Your task to perform on an android device: open the mobile data screen to see how much data has been used Image 0: 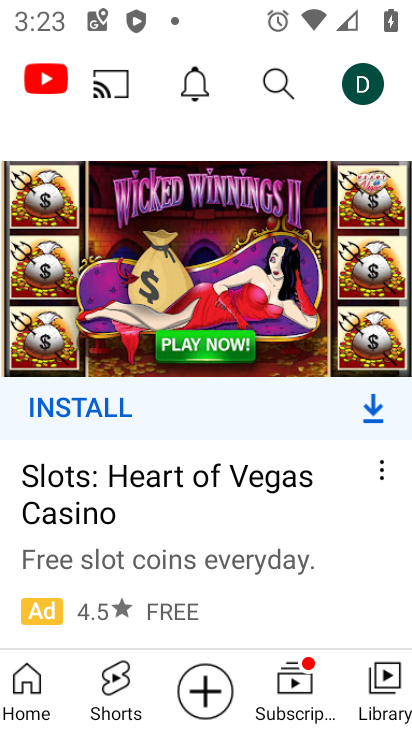
Step 0: press home button
Your task to perform on an android device: open the mobile data screen to see how much data has been used Image 1: 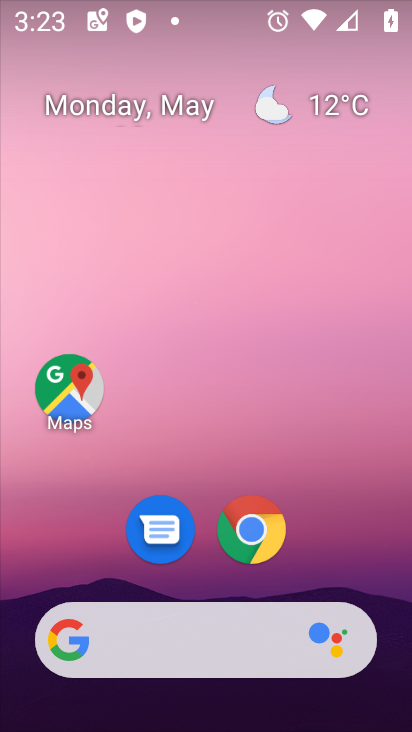
Step 1: drag from (353, 560) to (312, 15)
Your task to perform on an android device: open the mobile data screen to see how much data has been used Image 2: 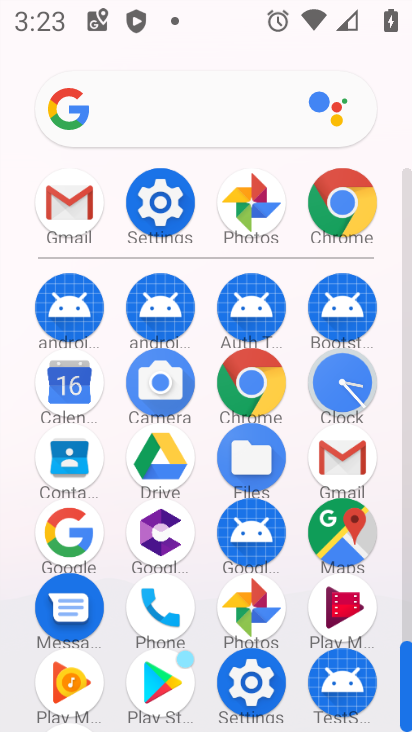
Step 2: click (155, 201)
Your task to perform on an android device: open the mobile data screen to see how much data has been used Image 3: 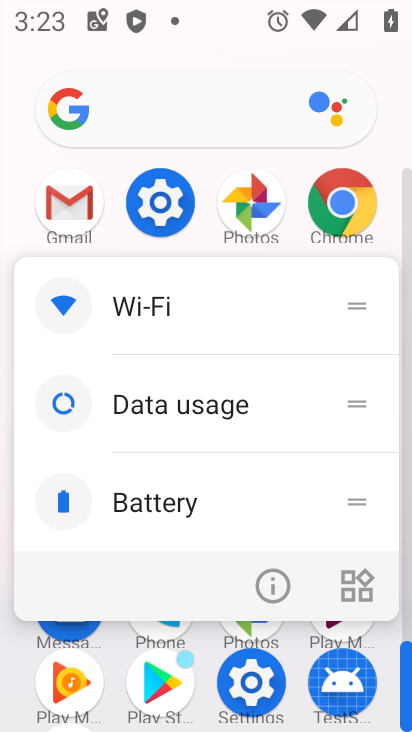
Step 3: click (160, 211)
Your task to perform on an android device: open the mobile data screen to see how much data has been used Image 4: 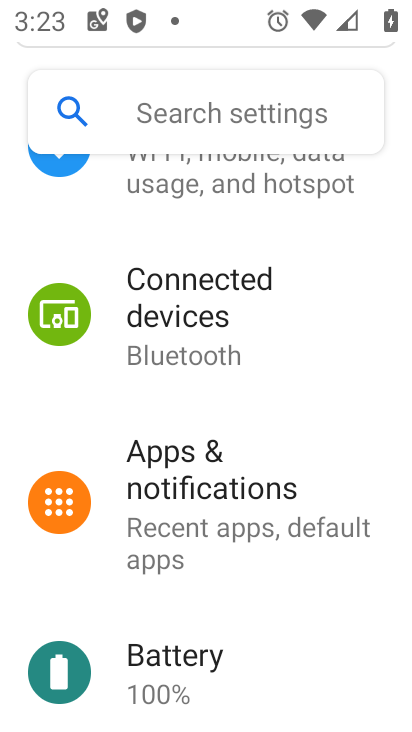
Step 4: drag from (193, 242) to (248, 485)
Your task to perform on an android device: open the mobile data screen to see how much data has been used Image 5: 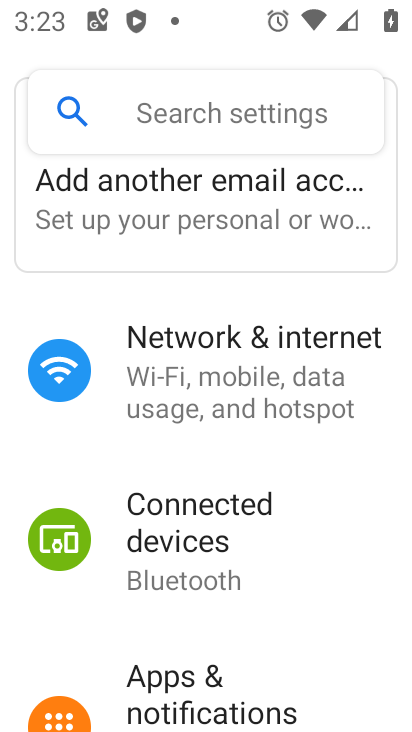
Step 5: click (239, 353)
Your task to perform on an android device: open the mobile data screen to see how much data has been used Image 6: 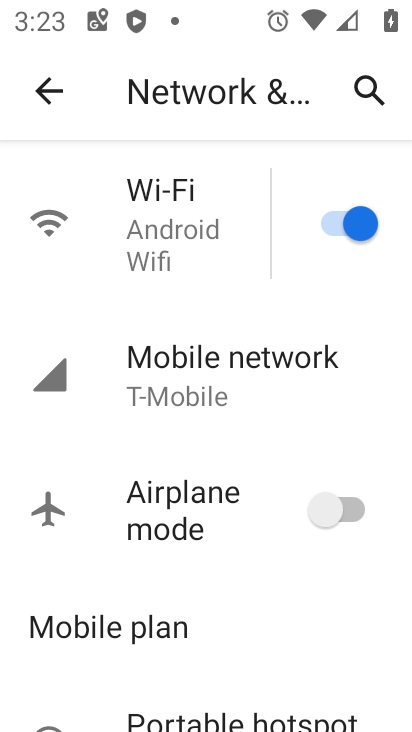
Step 6: click (206, 390)
Your task to perform on an android device: open the mobile data screen to see how much data has been used Image 7: 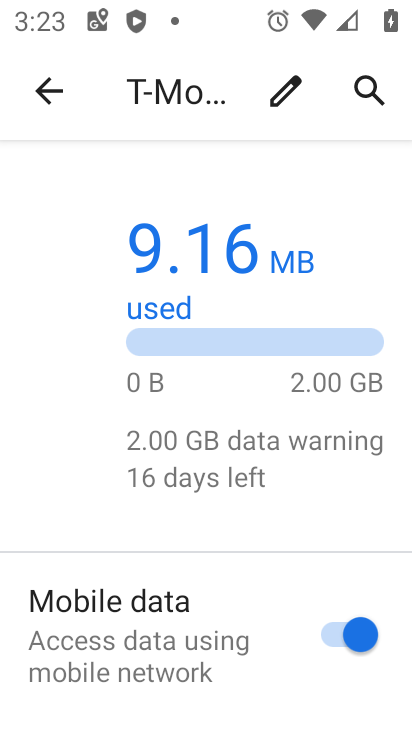
Step 7: drag from (201, 579) to (204, 106)
Your task to perform on an android device: open the mobile data screen to see how much data has been used Image 8: 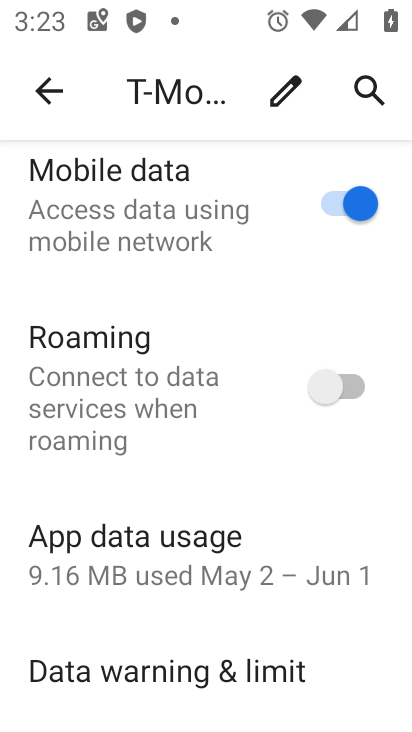
Step 8: click (150, 551)
Your task to perform on an android device: open the mobile data screen to see how much data has been used Image 9: 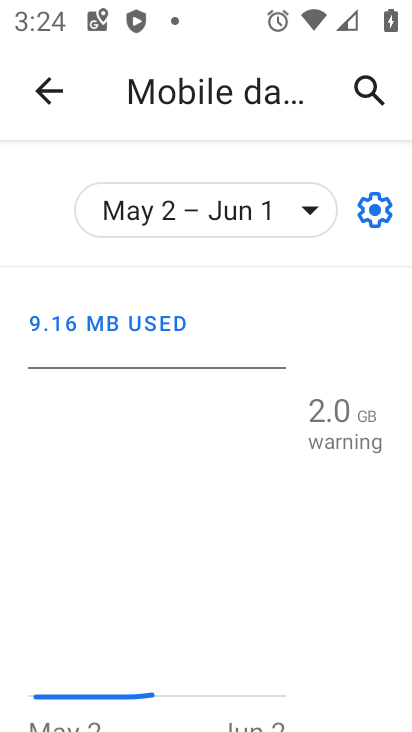
Step 9: task complete